Your task to perform on an android device: Open calendar and show me the fourth week of next month Image 0: 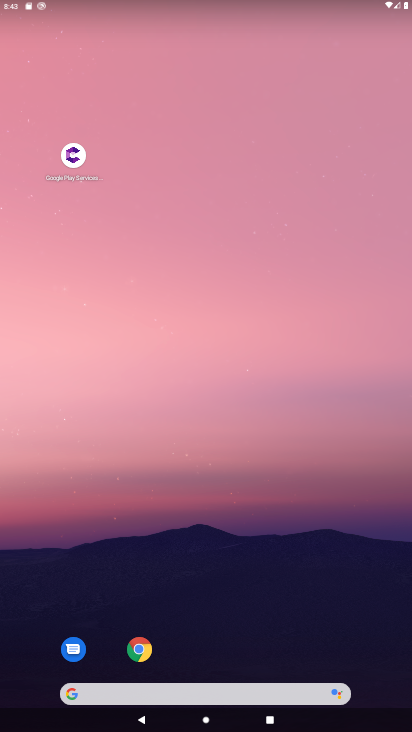
Step 0: drag from (203, 673) to (213, 88)
Your task to perform on an android device: Open calendar and show me the fourth week of next month Image 1: 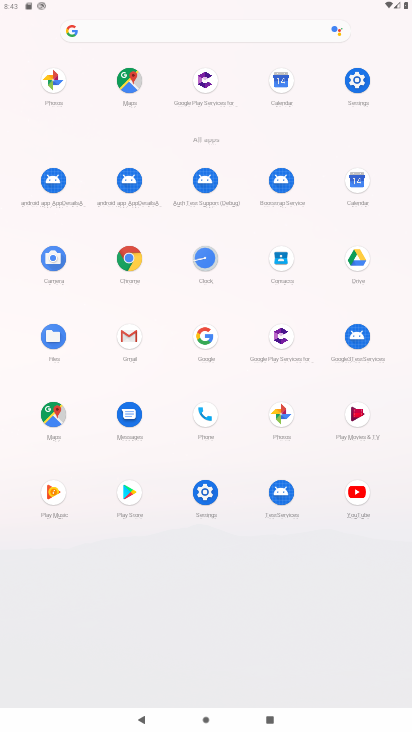
Step 1: click (350, 196)
Your task to perform on an android device: Open calendar and show me the fourth week of next month Image 2: 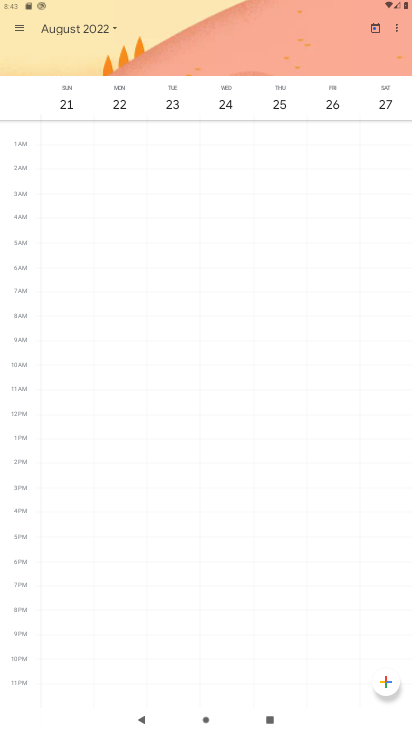
Step 2: task complete